Your task to perform on an android device: Open Amazon Image 0: 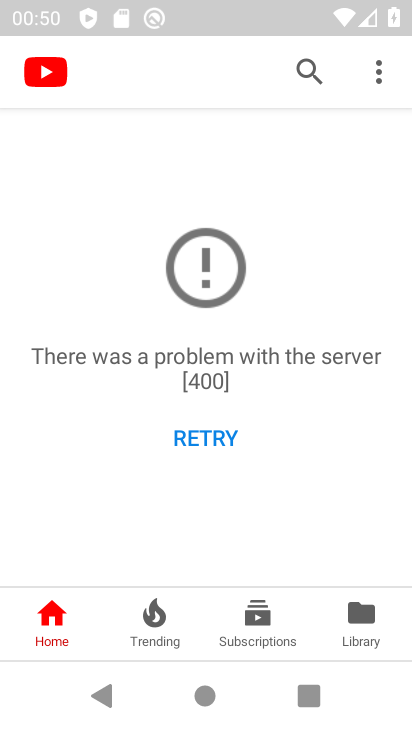
Step 0: press home button
Your task to perform on an android device: Open Amazon Image 1: 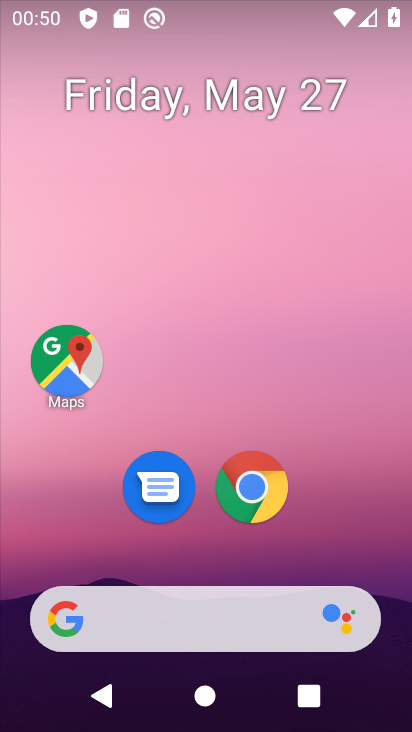
Step 1: click (270, 475)
Your task to perform on an android device: Open Amazon Image 2: 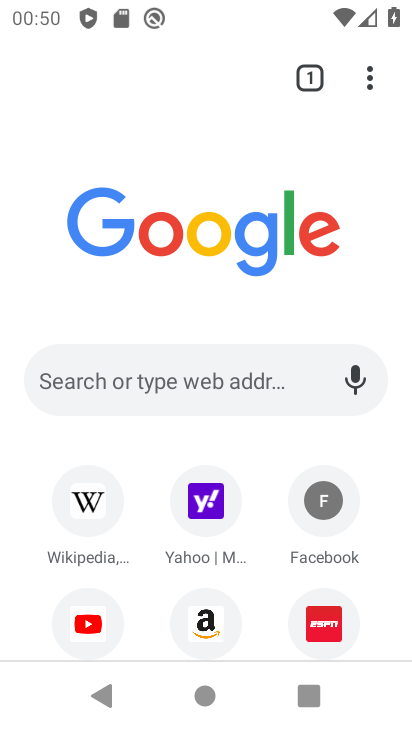
Step 2: click (208, 630)
Your task to perform on an android device: Open Amazon Image 3: 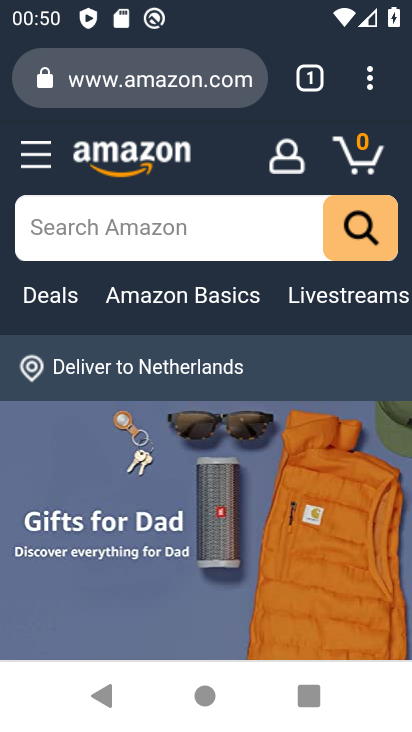
Step 3: task complete